Your task to perform on an android device: Go to display settings Image 0: 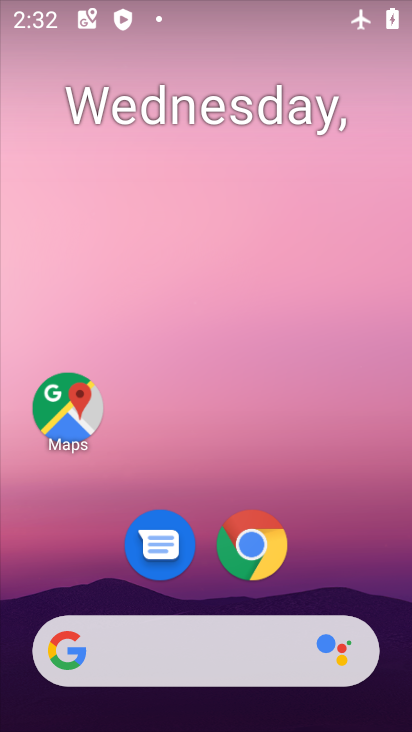
Step 0: drag from (345, 553) to (285, 210)
Your task to perform on an android device: Go to display settings Image 1: 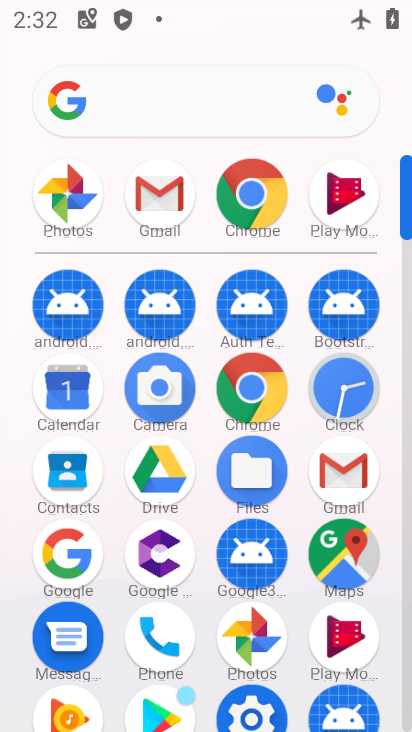
Step 1: click (251, 704)
Your task to perform on an android device: Go to display settings Image 2: 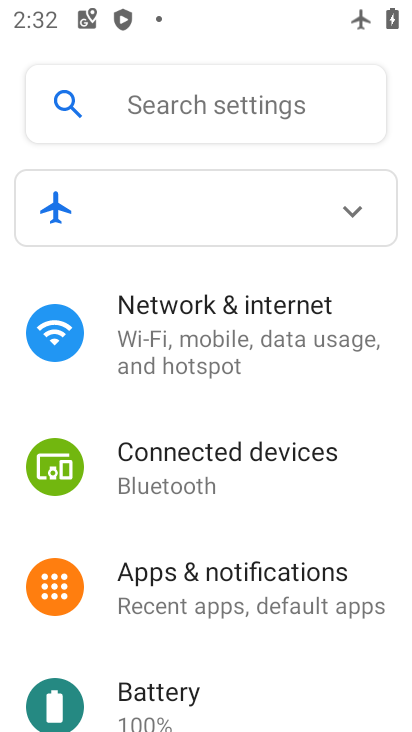
Step 2: drag from (244, 577) to (236, 161)
Your task to perform on an android device: Go to display settings Image 3: 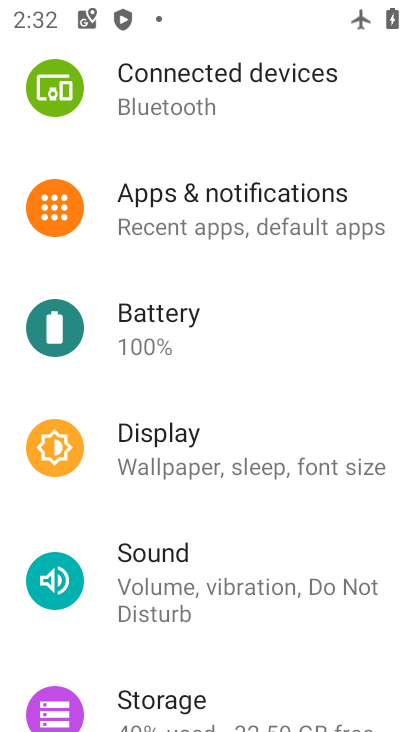
Step 3: click (162, 466)
Your task to perform on an android device: Go to display settings Image 4: 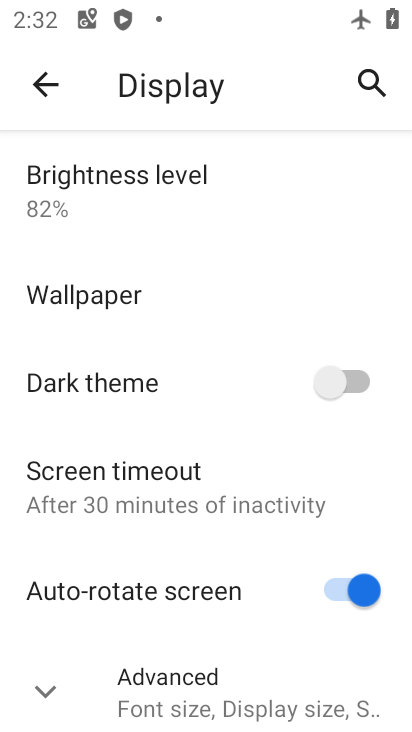
Step 4: task complete